Your task to perform on an android device: Open settings on Google Maps Image 0: 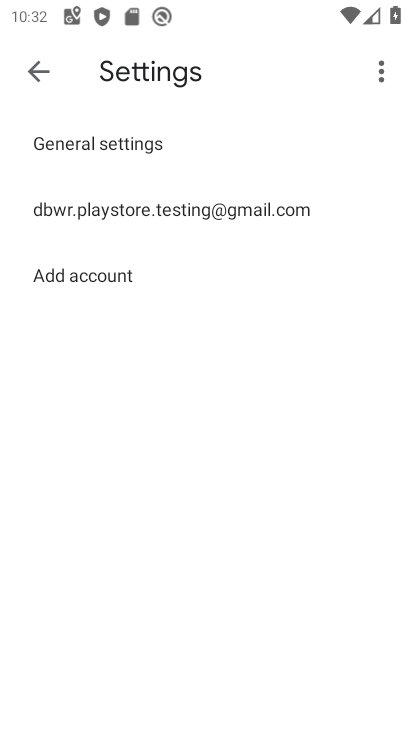
Step 0: press home button
Your task to perform on an android device: Open settings on Google Maps Image 1: 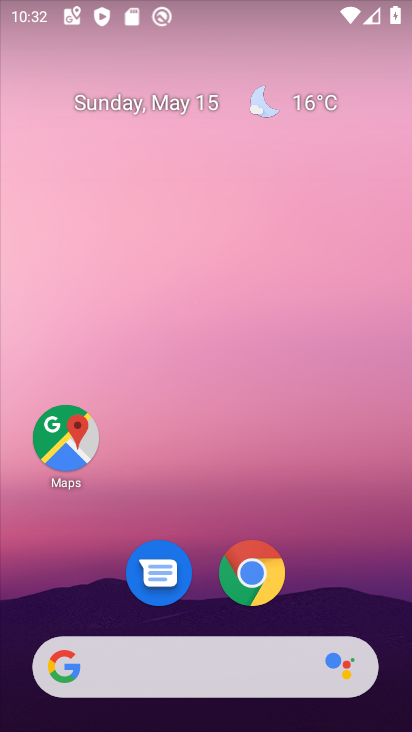
Step 1: drag from (368, 592) to (299, 92)
Your task to perform on an android device: Open settings on Google Maps Image 2: 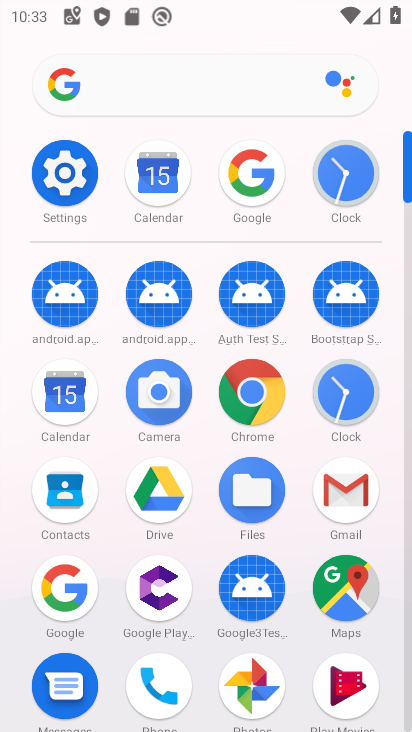
Step 2: click (335, 606)
Your task to perform on an android device: Open settings on Google Maps Image 3: 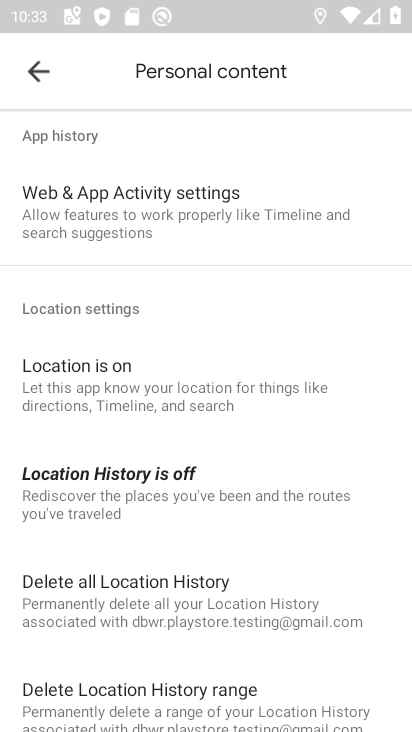
Step 3: task complete